Your task to perform on an android device: Search for macbook pro 13 inch on costco.com, select the first entry, add it to the cart, then select checkout. Image 0: 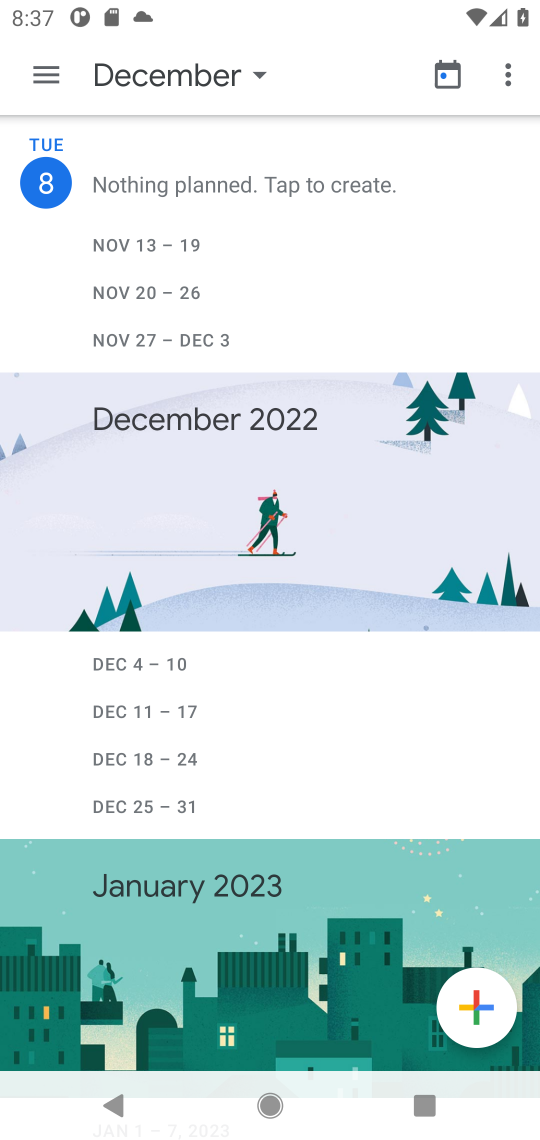
Step 0: press home button
Your task to perform on an android device: Search for macbook pro 13 inch on costco.com, select the first entry, add it to the cart, then select checkout. Image 1: 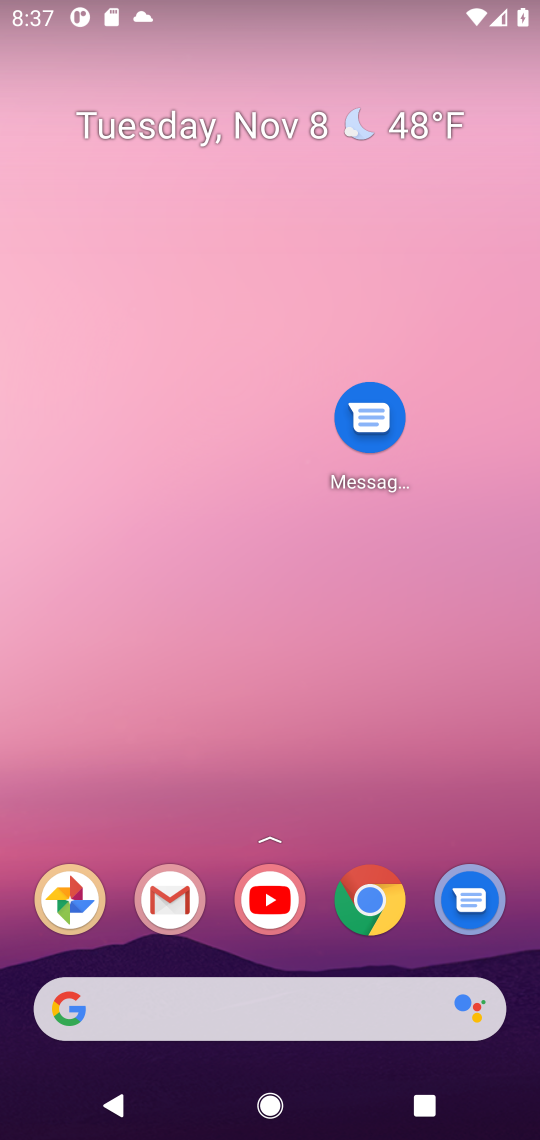
Step 1: drag from (236, 932) to (278, 92)
Your task to perform on an android device: Search for macbook pro 13 inch on costco.com, select the first entry, add it to the cart, then select checkout. Image 2: 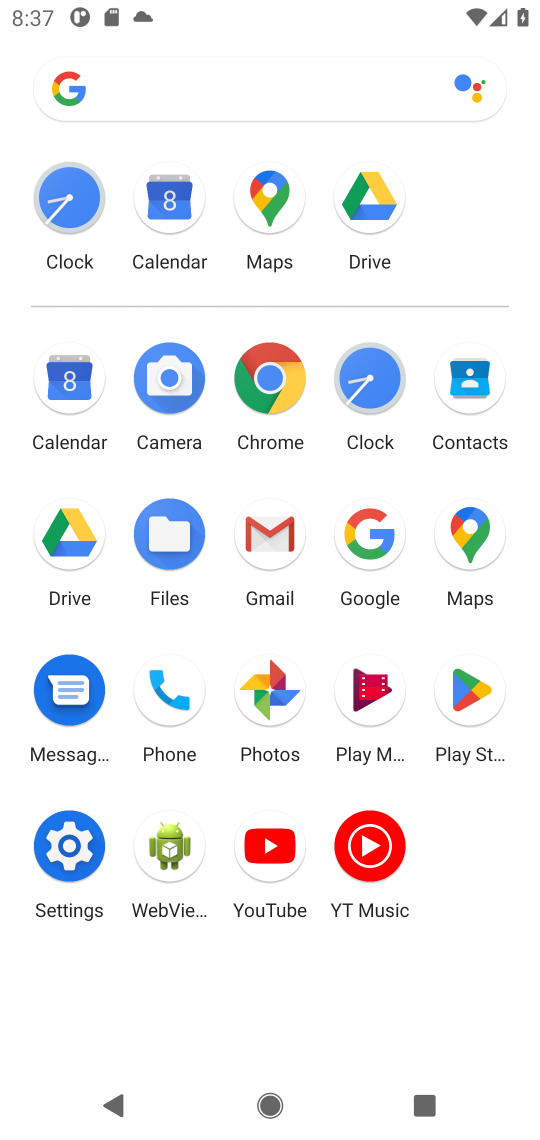
Step 2: click (383, 521)
Your task to perform on an android device: Search for macbook pro 13 inch on costco.com, select the first entry, add it to the cart, then select checkout. Image 3: 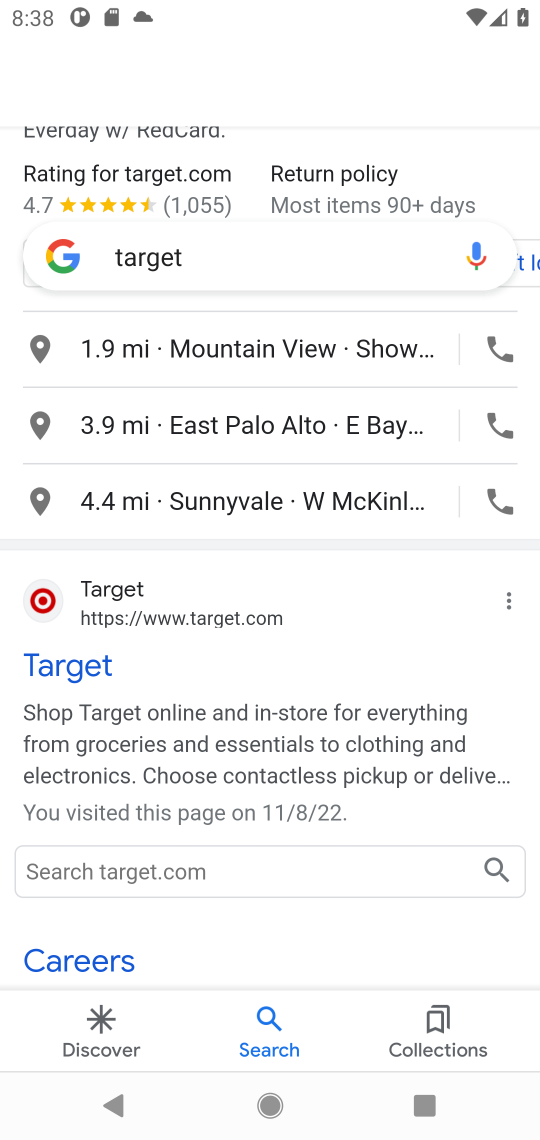
Step 3: click (276, 243)
Your task to perform on an android device: Search for macbook pro 13 inch on costco.com, select the first entry, add it to the cart, then select checkout. Image 4: 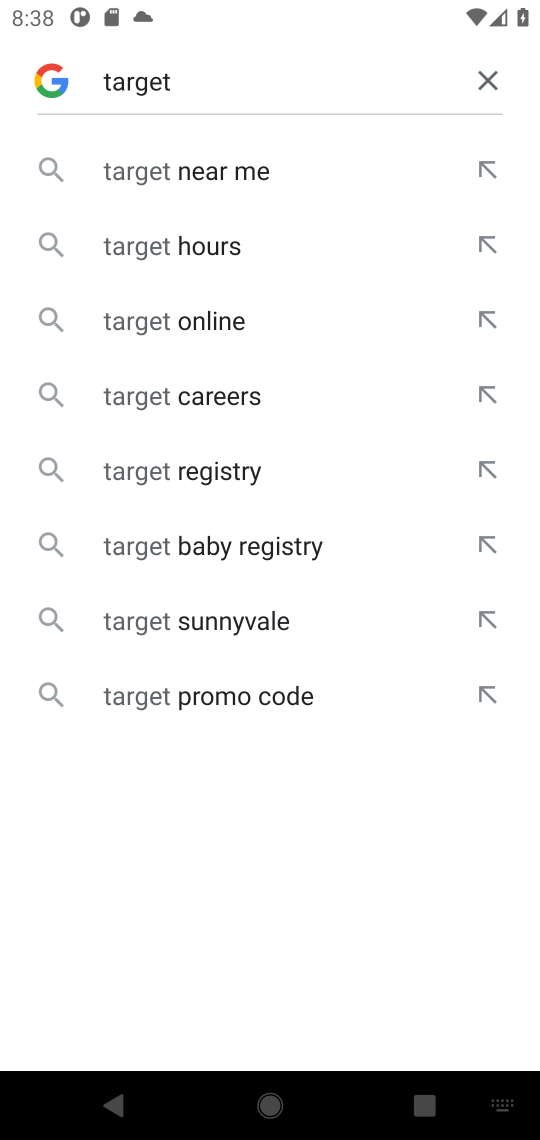
Step 4: click (471, 75)
Your task to perform on an android device: Search for macbook pro 13 inch on costco.com, select the first entry, add it to the cart, then select checkout. Image 5: 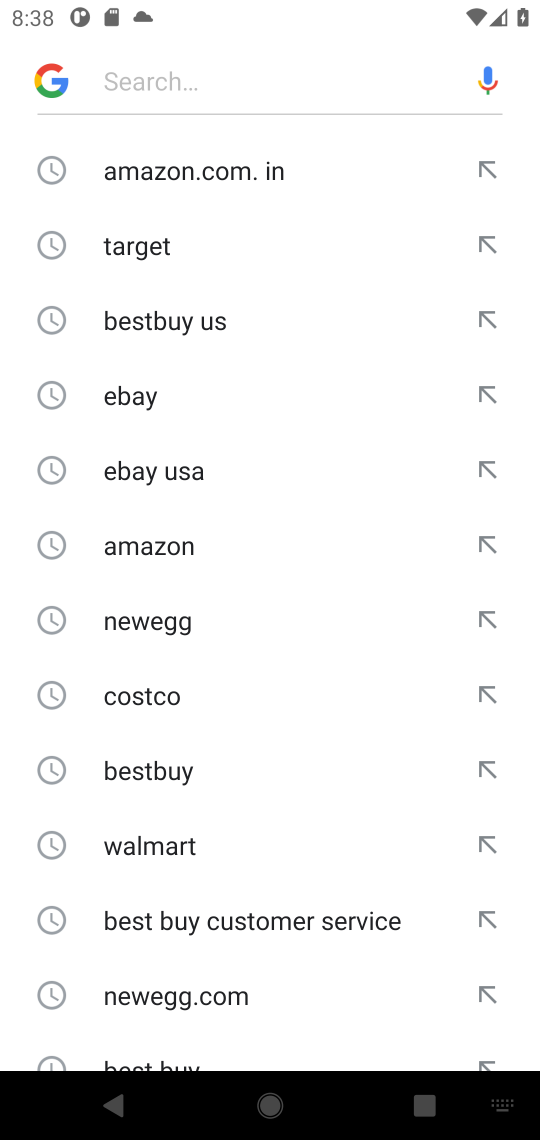
Step 5: click (168, 681)
Your task to perform on an android device: Search for macbook pro 13 inch on costco.com, select the first entry, add it to the cart, then select checkout. Image 6: 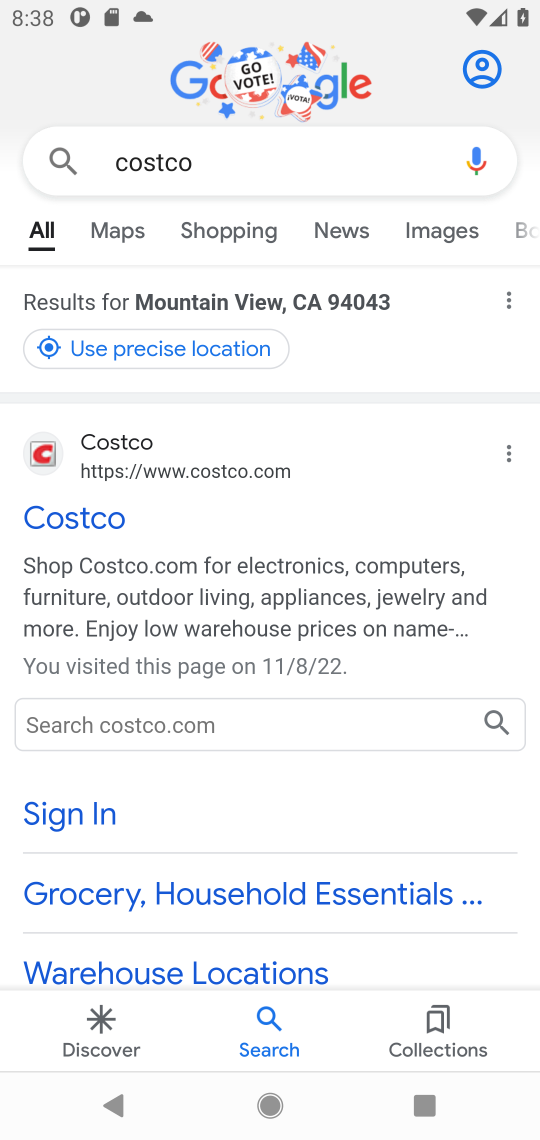
Step 6: click (40, 453)
Your task to perform on an android device: Search for macbook pro 13 inch on costco.com, select the first entry, add it to the cart, then select checkout. Image 7: 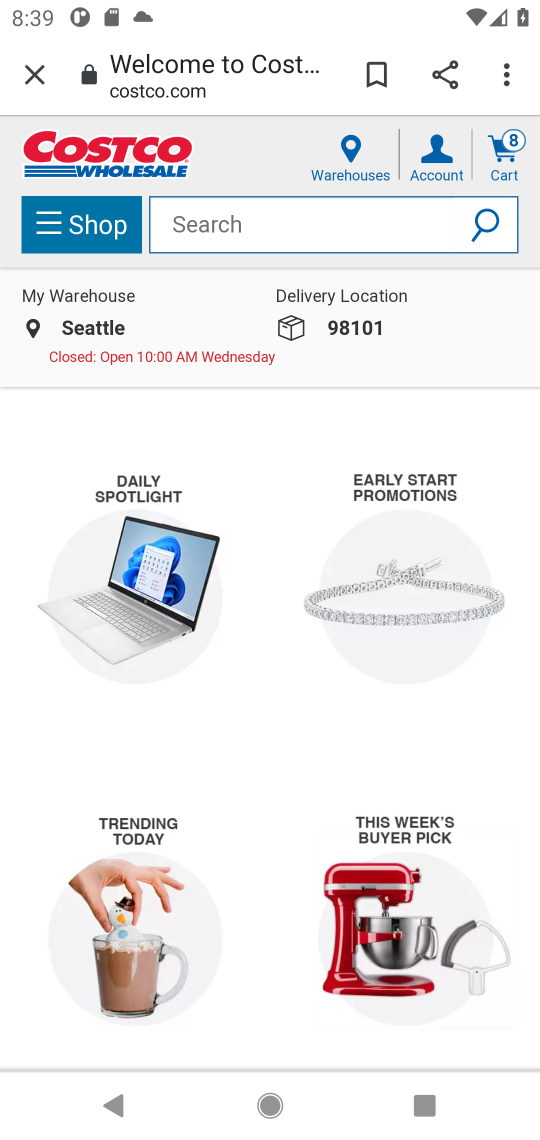
Step 7: click (290, 204)
Your task to perform on an android device: Search for macbook pro 13 inch on costco.com, select the first entry, add it to the cart, then select checkout. Image 8: 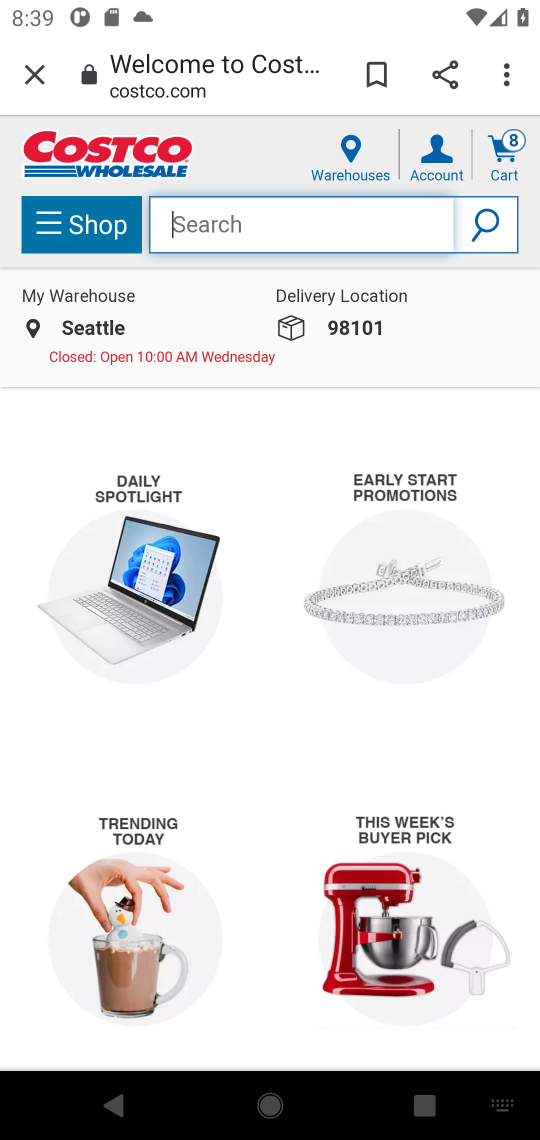
Step 8: type " macbook pro 13 inch "
Your task to perform on an android device: Search for macbook pro 13 inch on costco.com, select the first entry, add it to the cart, then select checkout. Image 9: 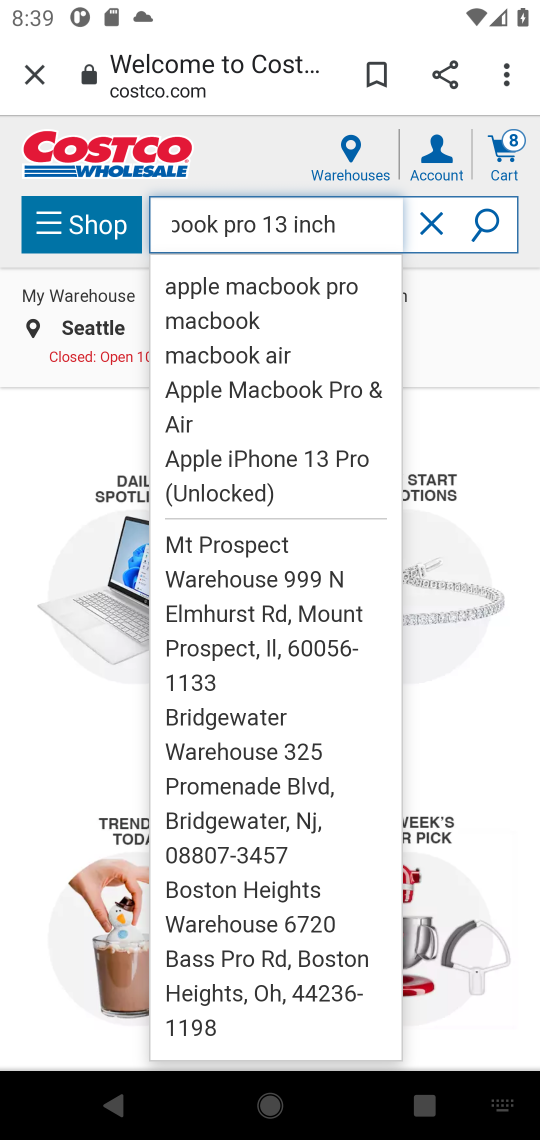
Step 9: click (499, 234)
Your task to perform on an android device: Search for macbook pro 13 inch on costco.com, select the first entry, add it to the cart, then select checkout. Image 10: 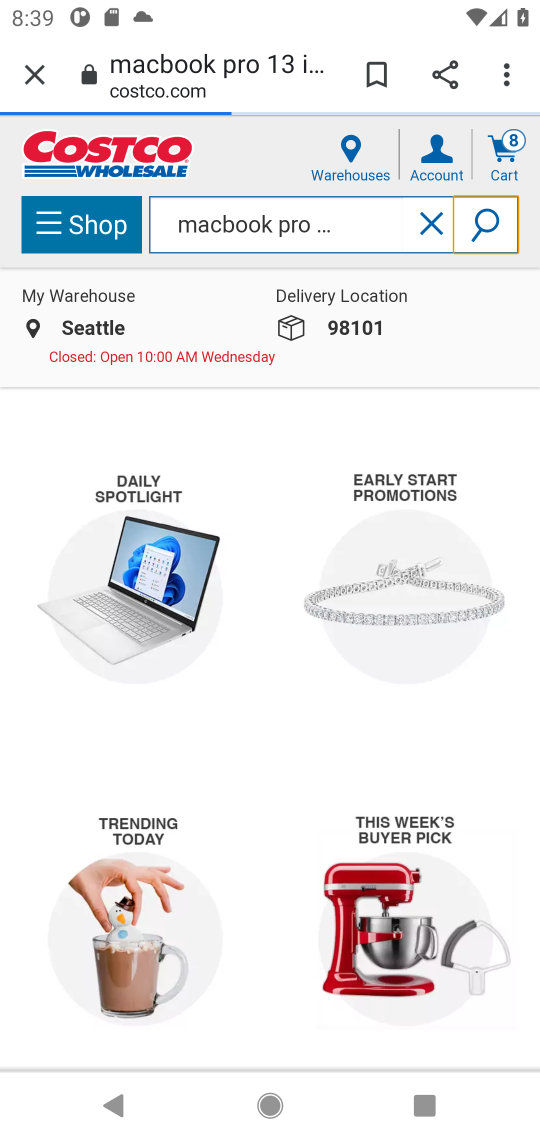
Step 10: click (478, 184)
Your task to perform on an android device: Search for macbook pro 13 inch on costco.com, select the first entry, add it to the cart, then select checkout. Image 11: 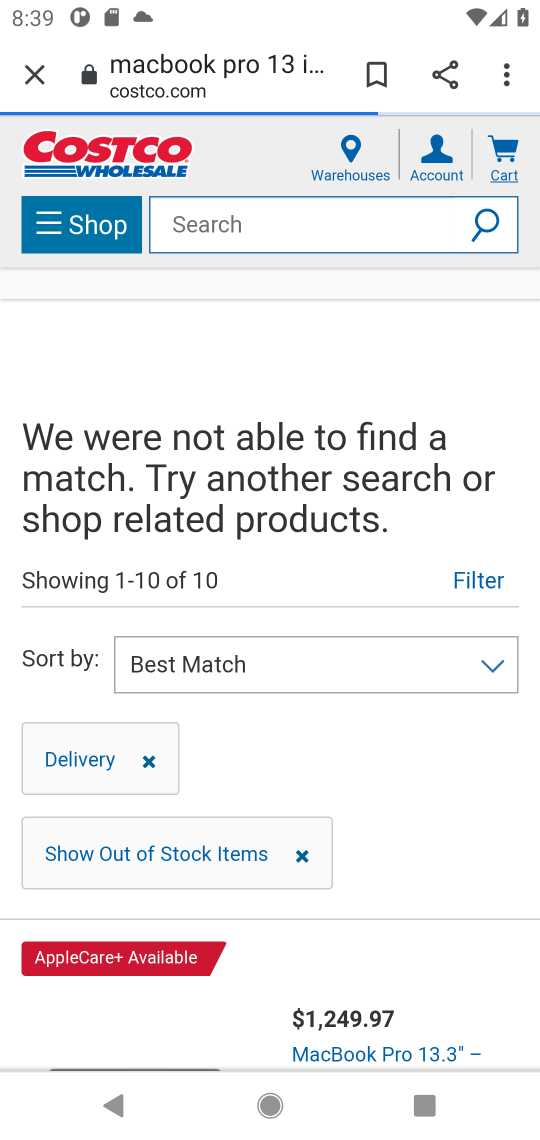
Step 11: drag from (407, 951) to (410, 281)
Your task to perform on an android device: Search for macbook pro 13 inch on costco.com, select the first entry, add it to the cart, then select checkout. Image 12: 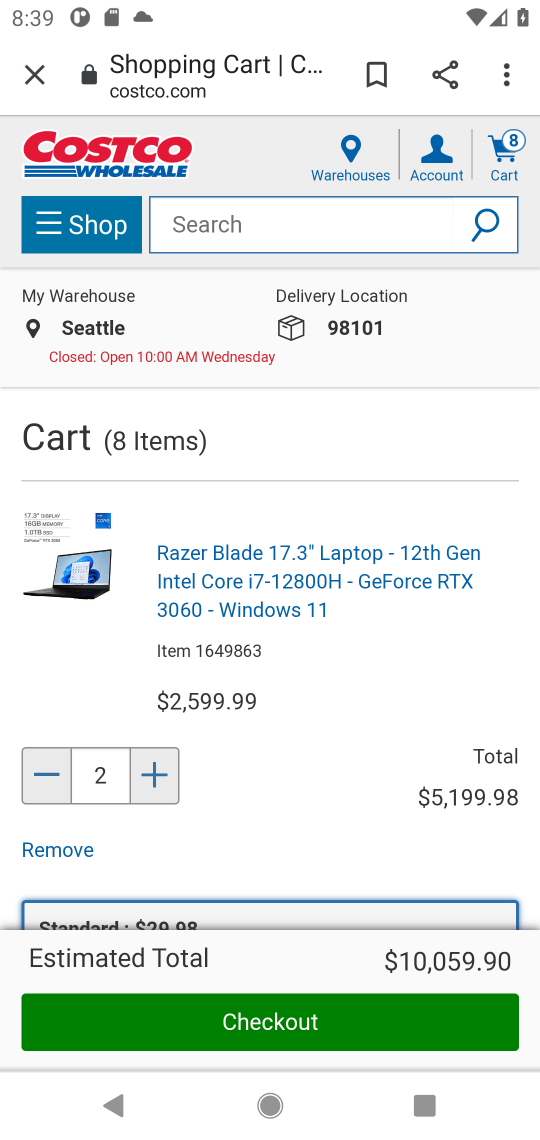
Step 12: click (334, 228)
Your task to perform on an android device: Search for macbook pro 13 inch on costco.com, select the first entry, add it to the cart, then select checkout. Image 13: 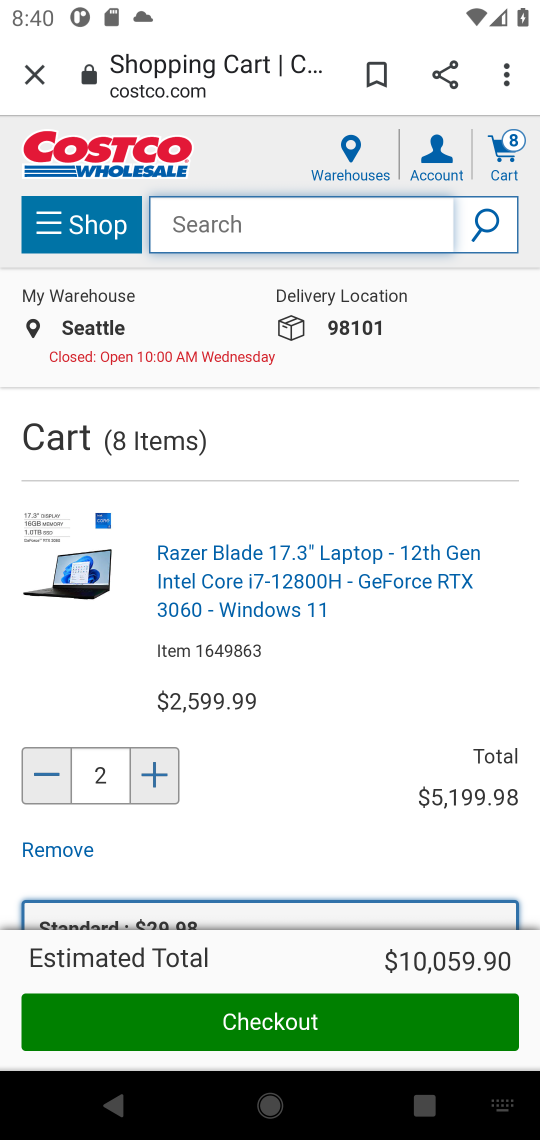
Step 13: click (346, 214)
Your task to perform on an android device: Search for macbook pro 13 inch on costco.com, select the first entry, add it to the cart, then select checkout. Image 14: 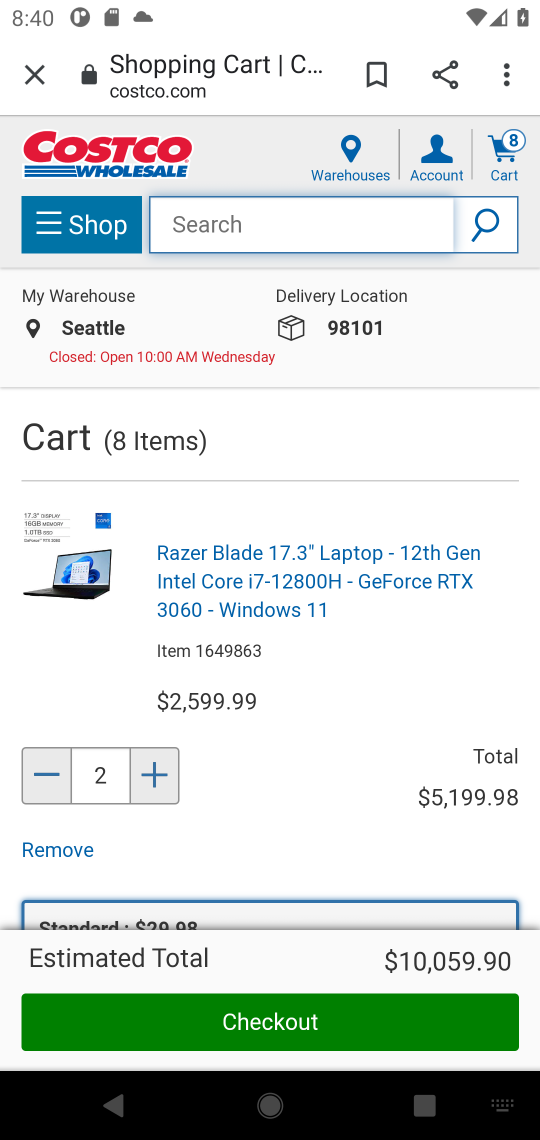
Step 14: type " macbook pro 13  "
Your task to perform on an android device: Search for macbook pro 13 inch on costco.com, select the first entry, add it to the cart, then select checkout. Image 15: 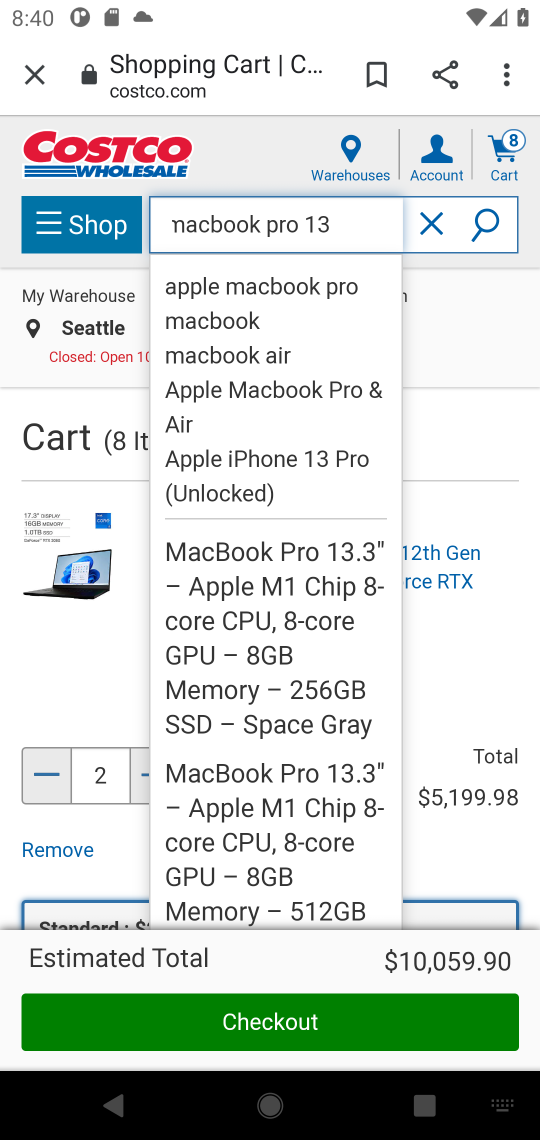
Step 15: click (252, 289)
Your task to perform on an android device: Search for macbook pro 13 inch on costco.com, select the first entry, add it to the cart, then select checkout. Image 16: 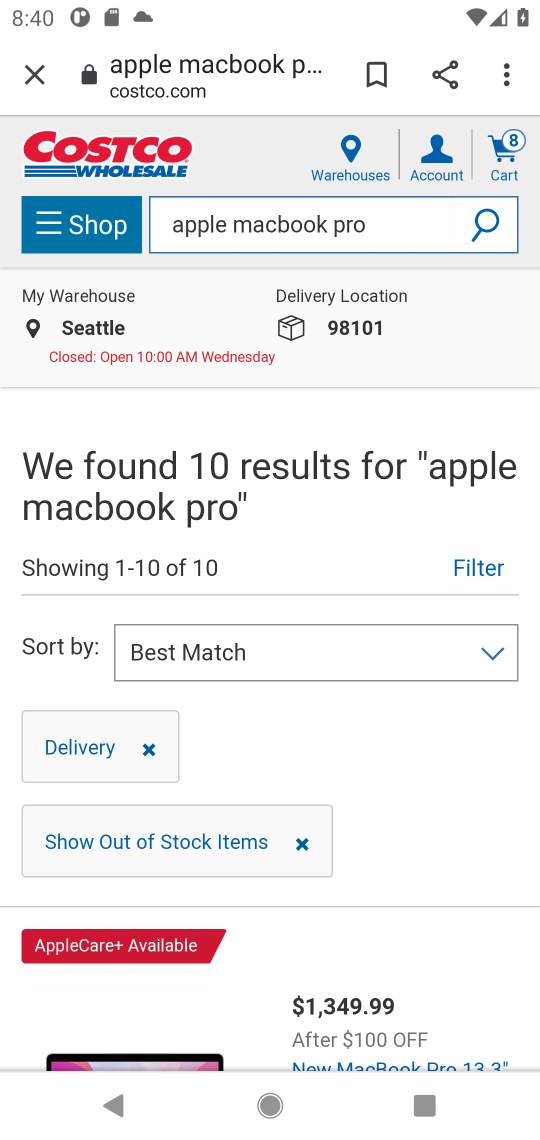
Step 16: drag from (334, 1018) to (381, 341)
Your task to perform on an android device: Search for macbook pro 13 inch on costco.com, select the first entry, add it to the cart, then select checkout. Image 17: 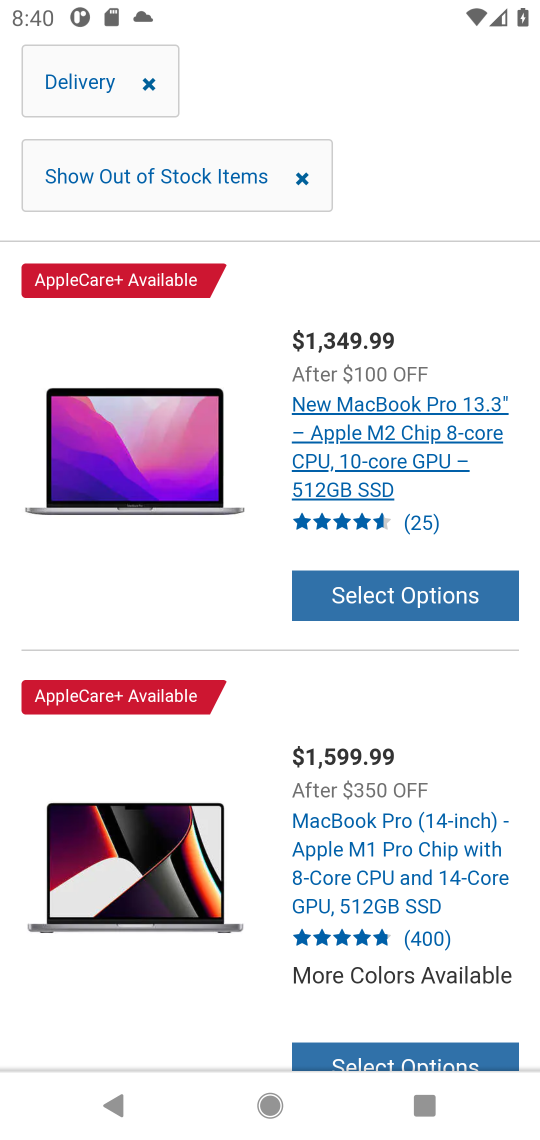
Step 17: drag from (383, 924) to (400, 749)
Your task to perform on an android device: Search for macbook pro 13 inch on costco.com, select the first entry, add it to the cart, then select checkout. Image 18: 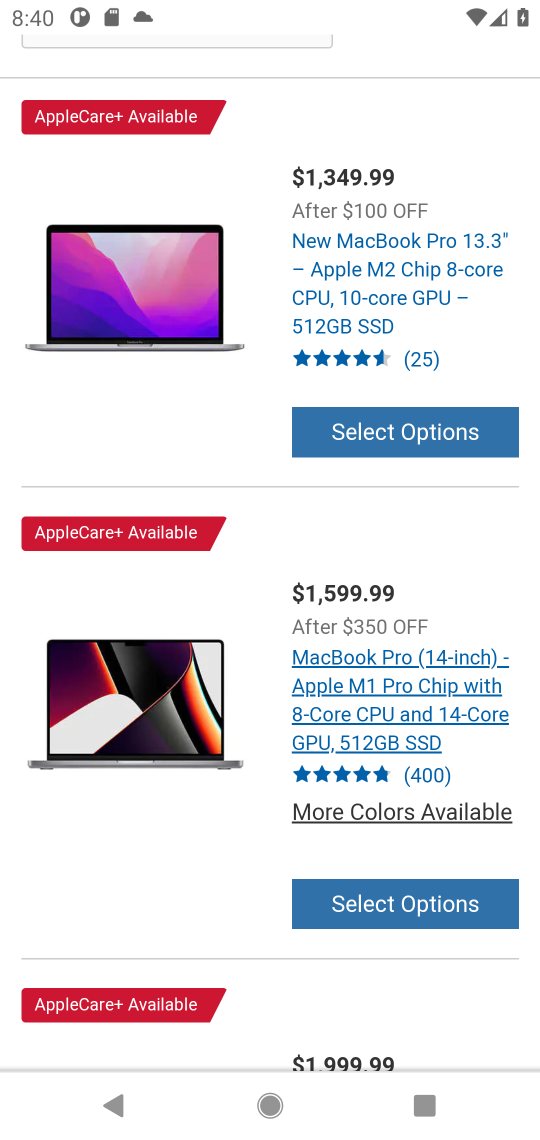
Step 18: click (380, 211)
Your task to perform on an android device: Search for macbook pro 13 inch on costco.com, select the first entry, add it to the cart, then select checkout. Image 19: 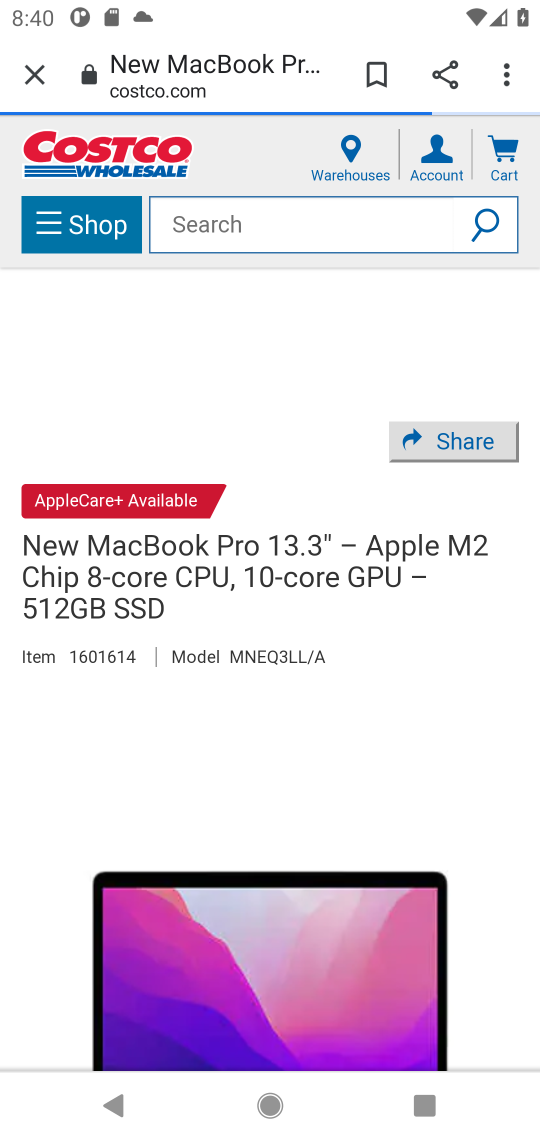
Step 19: drag from (363, 962) to (398, 287)
Your task to perform on an android device: Search for macbook pro 13 inch on costco.com, select the first entry, add it to the cart, then select checkout. Image 20: 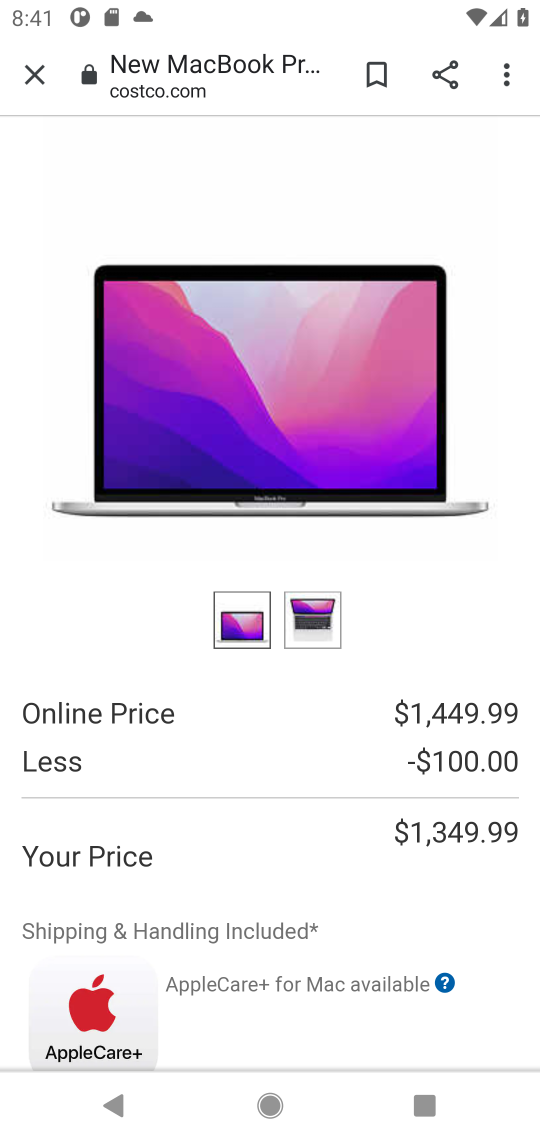
Step 20: drag from (446, 929) to (454, 190)
Your task to perform on an android device: Search for macbook pro 13 inch on costco.com, select the first entry, add it to the cart, then select checkout. Image 21: 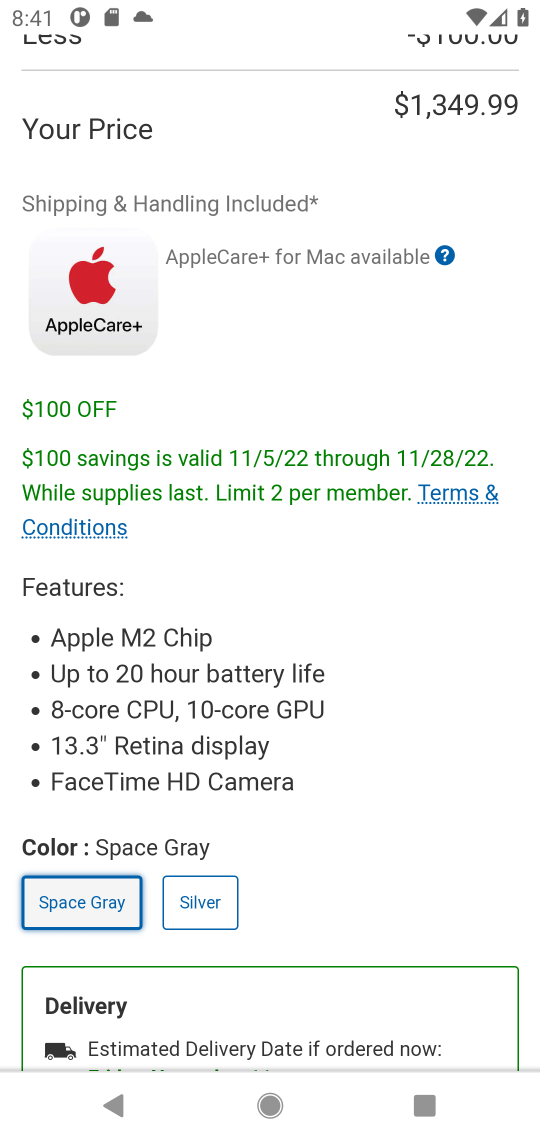
Step 21: drag from (302, 936) to (353, 120)
Your task to perform on an android device: Search for macbook pro 13 inch on costco.com, select the first entry, add it to the cart, then select checkout. Image 22: 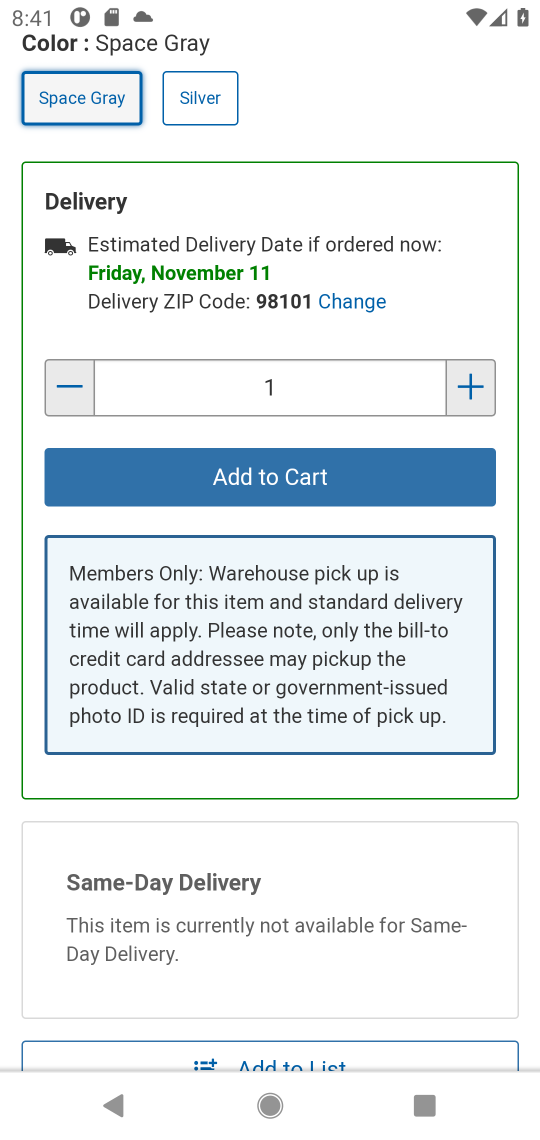
Step 22: click (252, 472)
Your task to perform on an android device: Search for macbook pro 13 inch on costco.com, select the first entry, add it to the cart, then select checkout. Image 23: 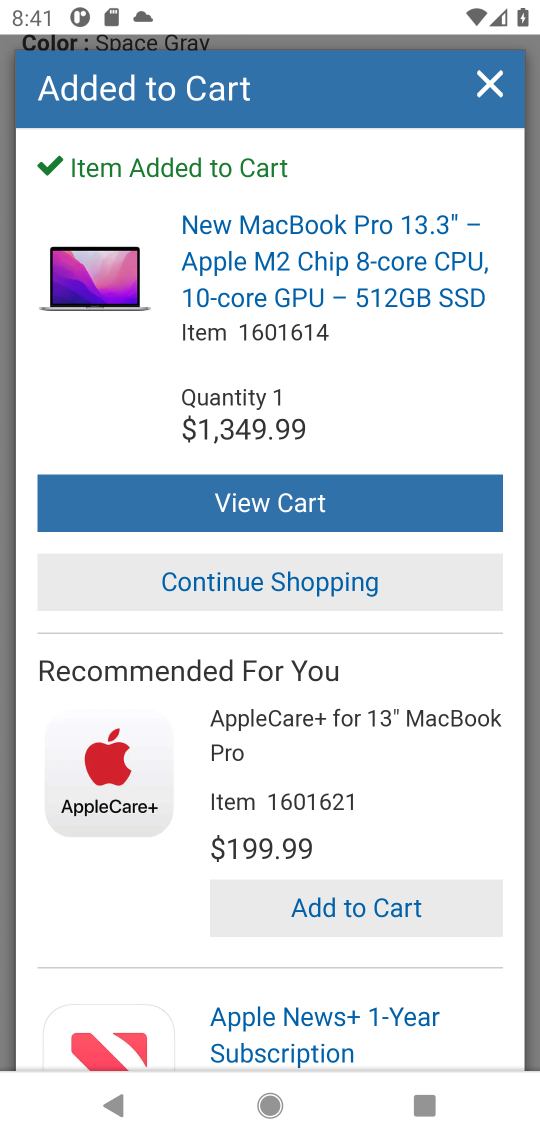
Step 23: task complete